Your task to perform on an android device: toggle wifi Image 0: 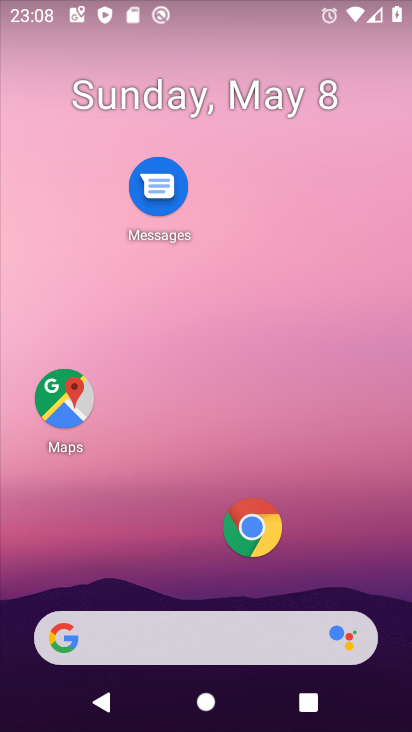
Step 0: drag from (181, 571) to (200, 79)
Your task to perform on an android device: toggle wifi Image 1: 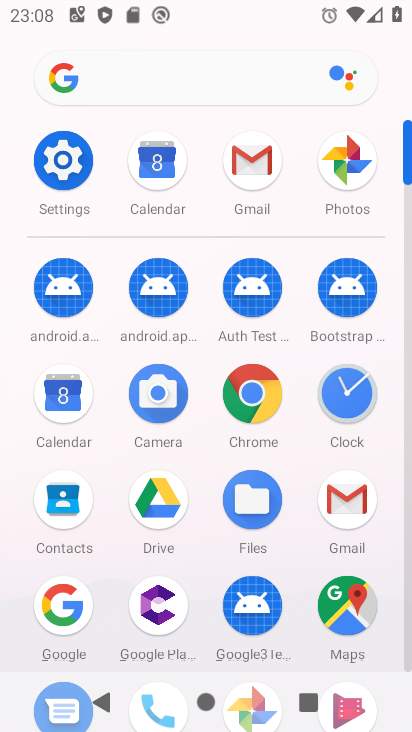
Step 1: click (64, 161)
Your task to perform on an android device: toggle wifi Image 2: 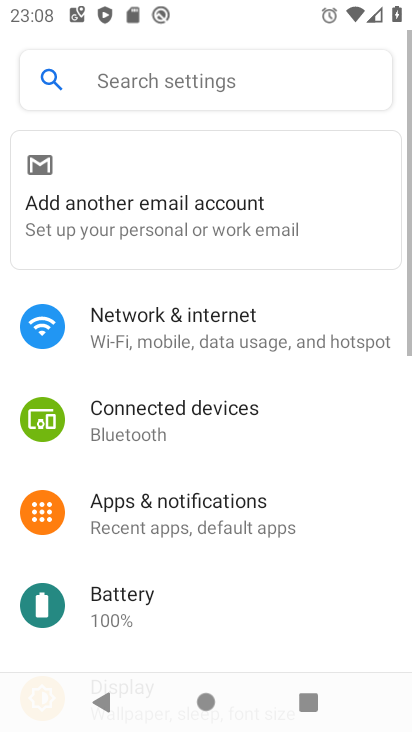
Step 2: click (203, 350)
Your task to perform on an android device: toggle wifi Image 3: 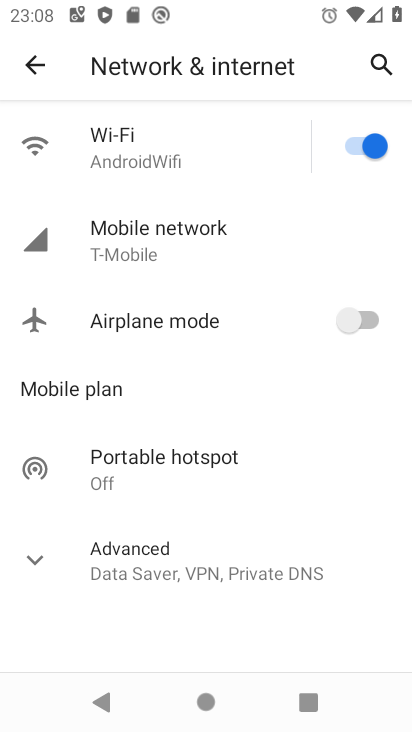
Step 3: click (350, 143)
Your task to perform on an android device: toggle wifi Image 4: 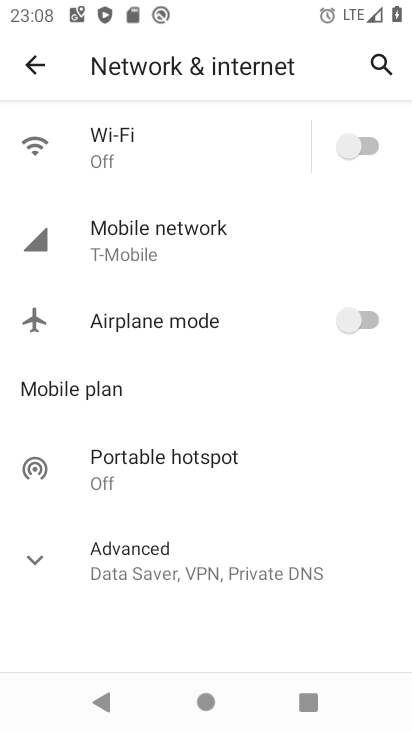
Step 4: task complete